Your task to perform on an android device: Go to Reddit.com Image 0: 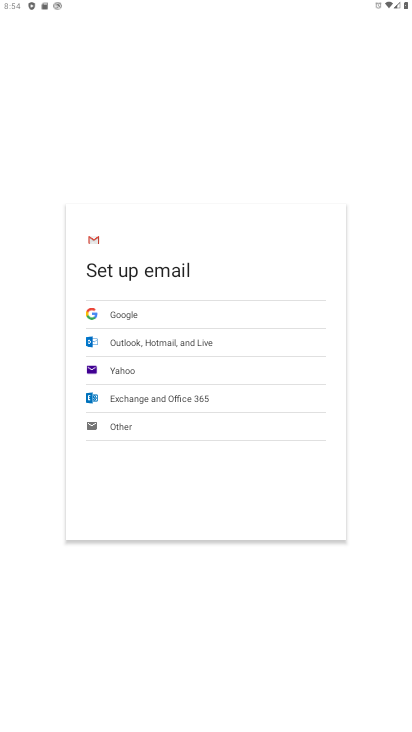
Step 0: press home button
Your task to perform on an android device: Go to Reddit.com Image 1: 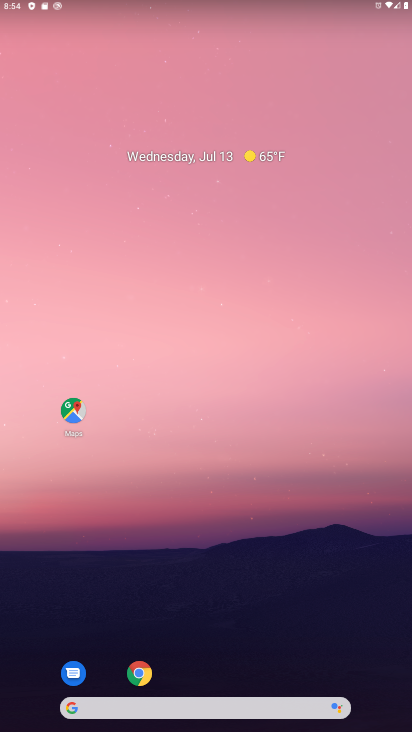
Step 1: click (140, 674)
Your task to perform on an android device: Go to Reddit.com Image 2: 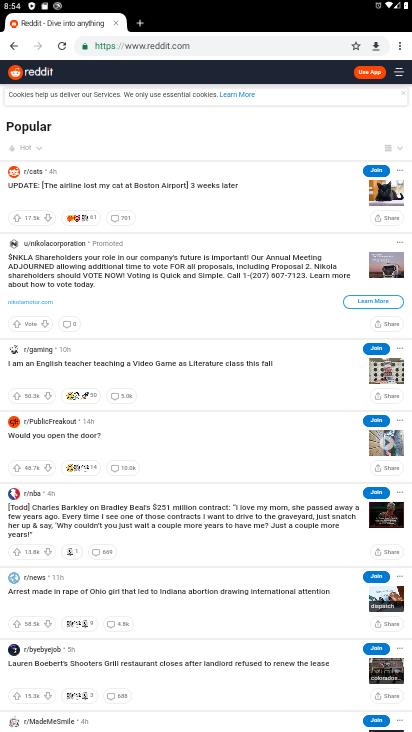
Step 2: task complete